Your task to perform on an android device: Open Google Image 0: 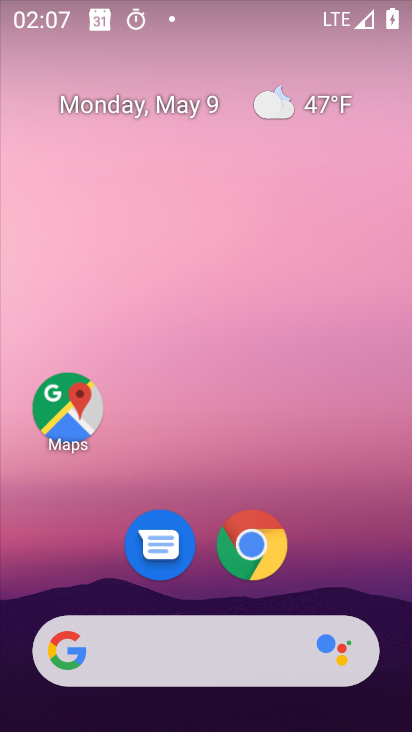
Step 0: drag from (319, 597) to (344, 10)
Your task to perform on an android device: Open Google Image 1: 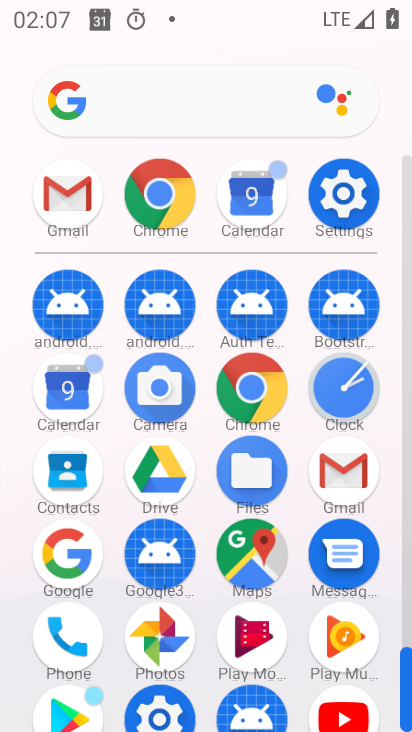
Step 1: click (254, 412)
Your task to perform on an android device: Open Google Image 2: 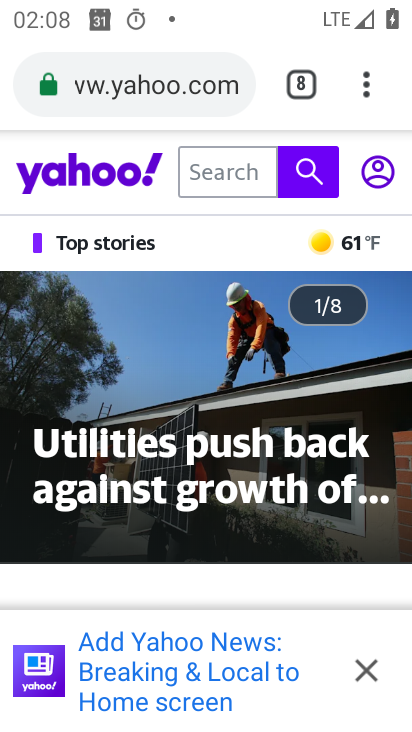
Step 2: task complete